Your task to perform on an android device: set an alarm Image 0: 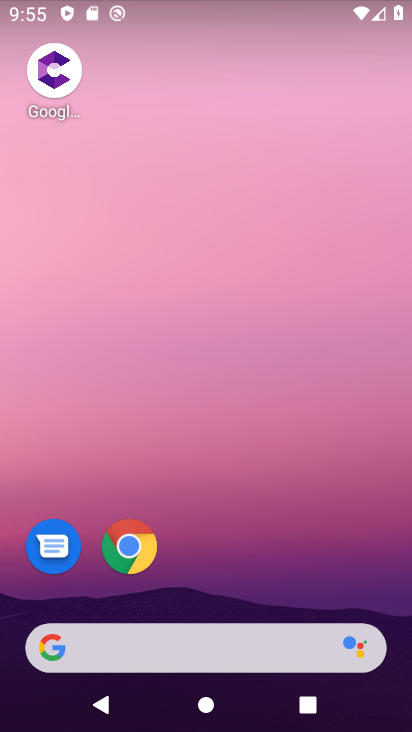
Step 0: drag from (209, 634) to (99, 139)
Your task to perform on an android device: set an alarm Image 1: 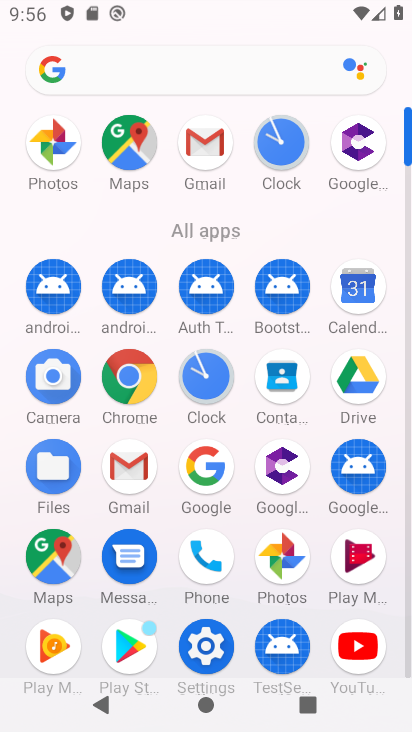
Step 1: click (194, 379)
Your task to perform on an android device: set an alarm Image 2: 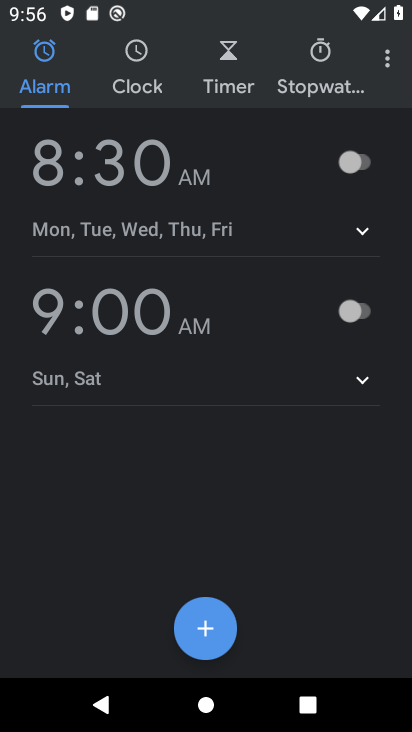
Step 2: click (360, 174)
Your task to perform on an android device: set an alarm Image 3: 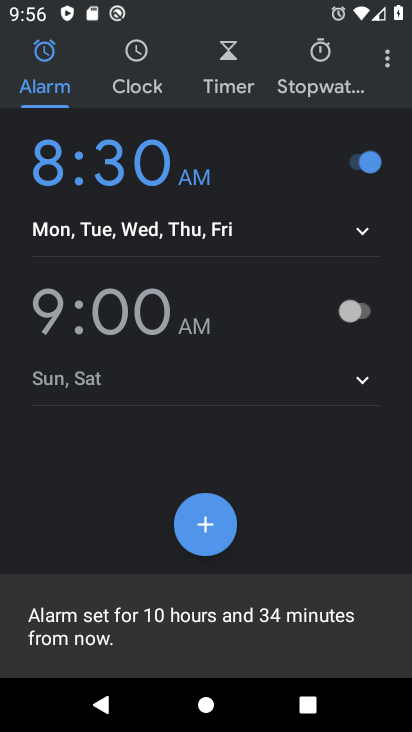
Step 3: task complete